Your task to perform on an android device: Open network settings Image 0: 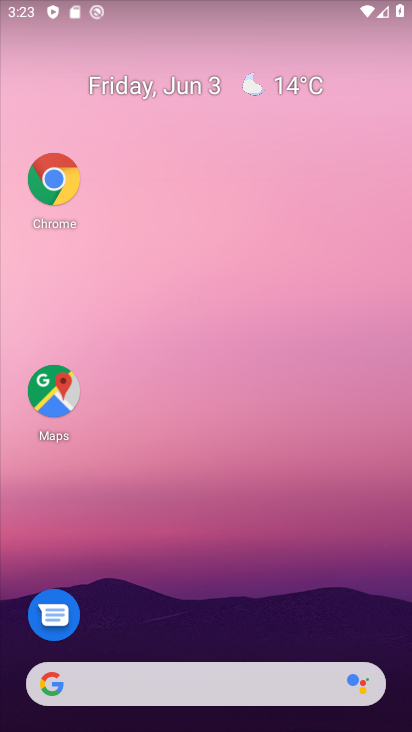
Step 0: drag from (188, 713) to (81, 74)
Your task to perform on an android device: Open network settings Image 1: 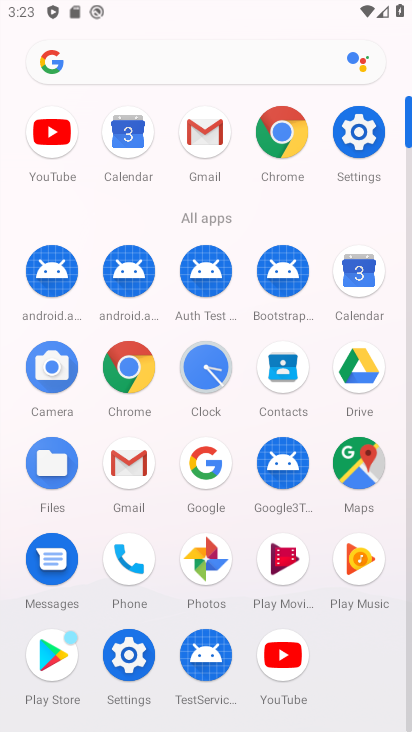
Step 1: click (364, 145)
Your task to perform on an android device: Open network settings Image 2: 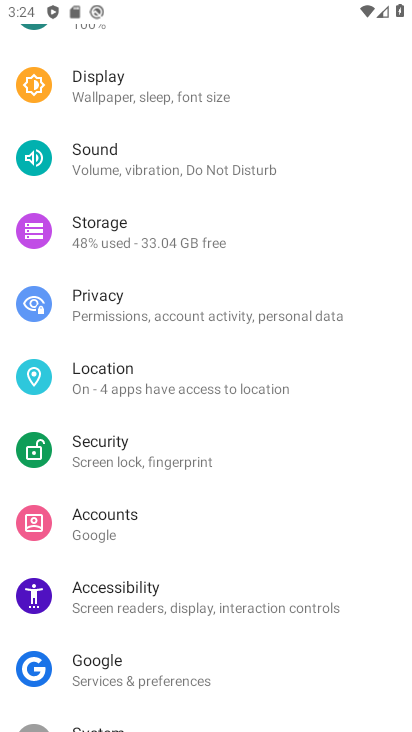
Step 2: drag from (356, 122) to (317, 666)
Your task to perform on an android device: Open network settings Image 3: 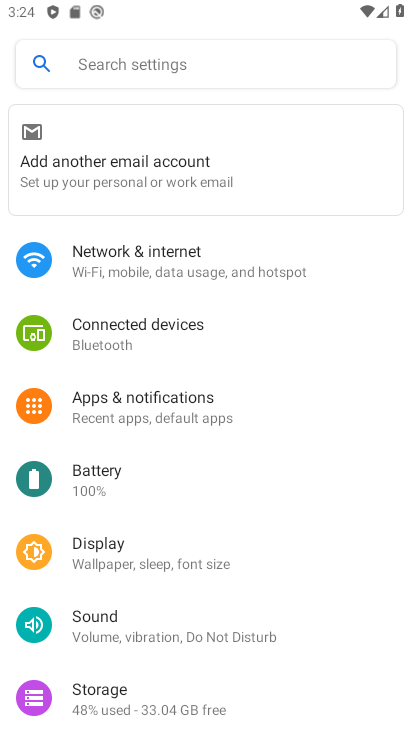
Step 3: click (174, 264)
Your task to perform on an android device: Open network settings Image 4: 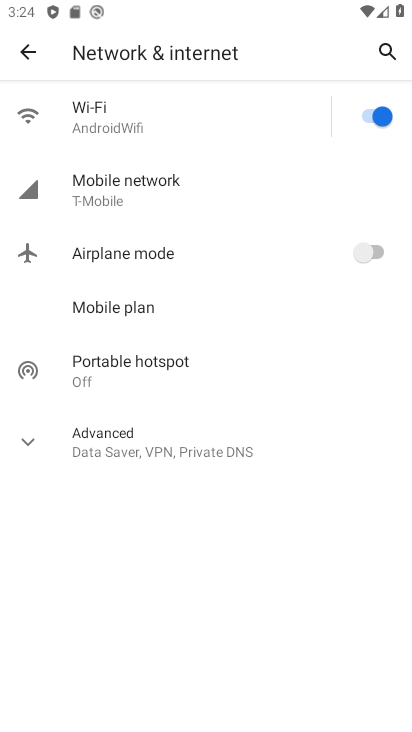
Step 4: click (110, 193)
Your task to perform on an android device: Open network settings Image 5: 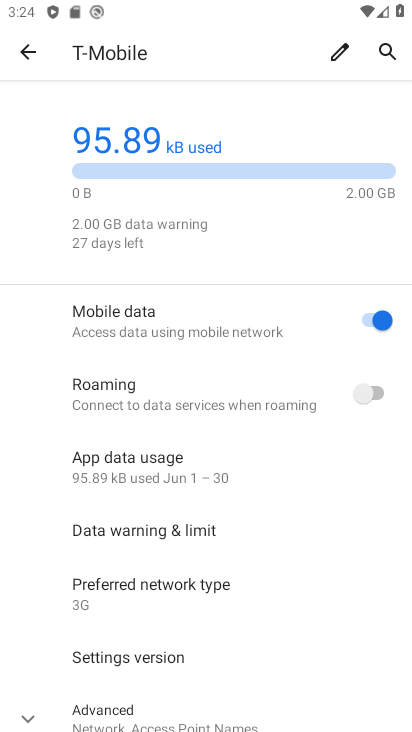
Step 5: drag from (247, 650) to (264, 256)
Your task to perform on an android device: Open network settings Image 6: 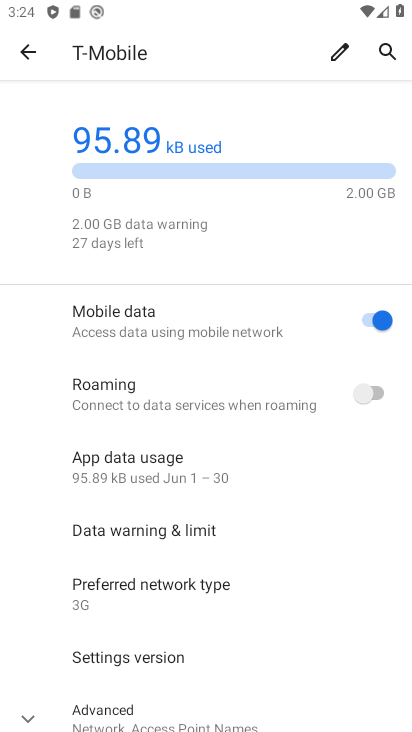
Step 6: drag from (39, 687) to (9, 230)
Your task to perform on an android device: Open network settings Image 7: 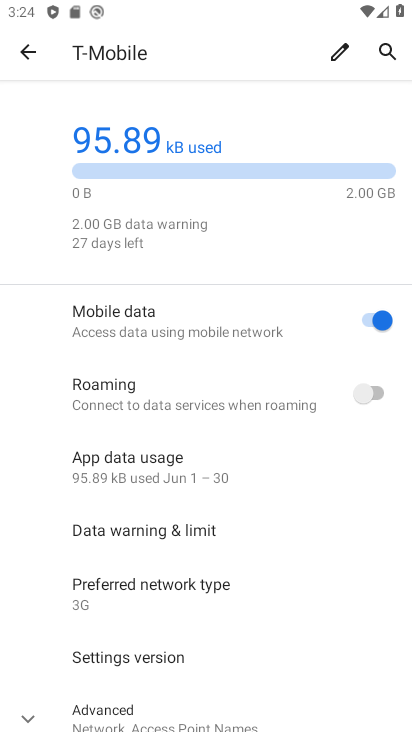
Step 7: drag from (300, 695) to (238, 275)
Your task to perform on an android device: Open network settings Image 8: 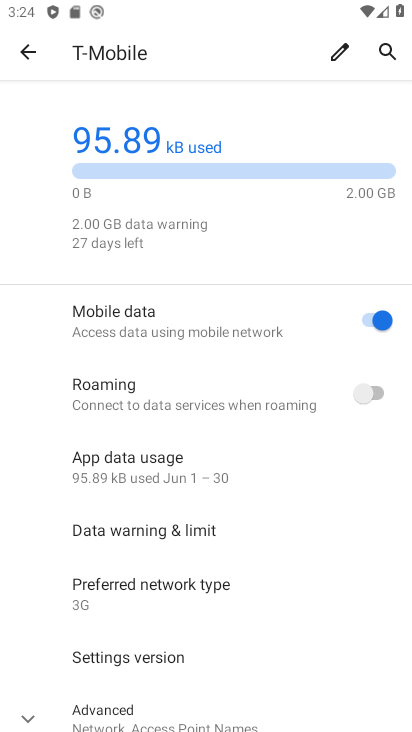
Step 8: drag from (299, 713) to (272, 345)
Your task to perform on an android device: Open network settings Image 9: 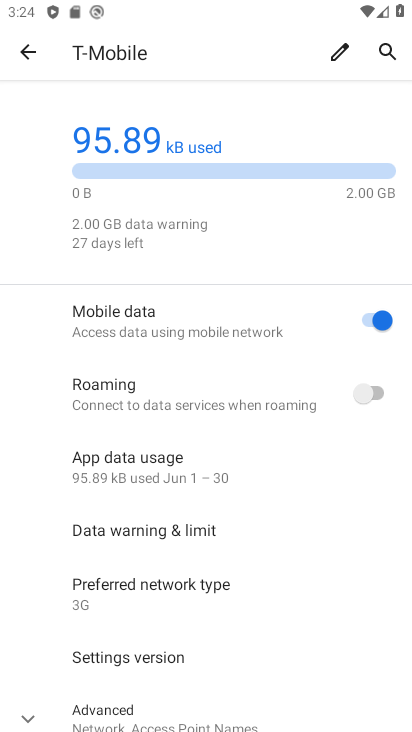
Step 9: click (198, 665)
Your task to perform on an android device: Open network settings Image 10: 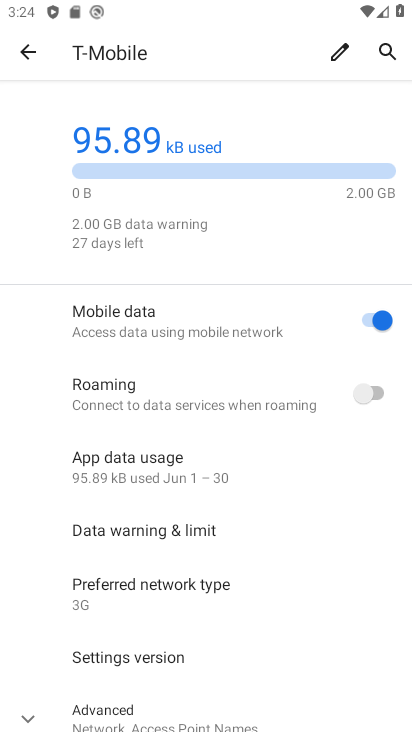
Step 10: click (198, 665)
Your task to perform on an android device: Open network settings Image 11: 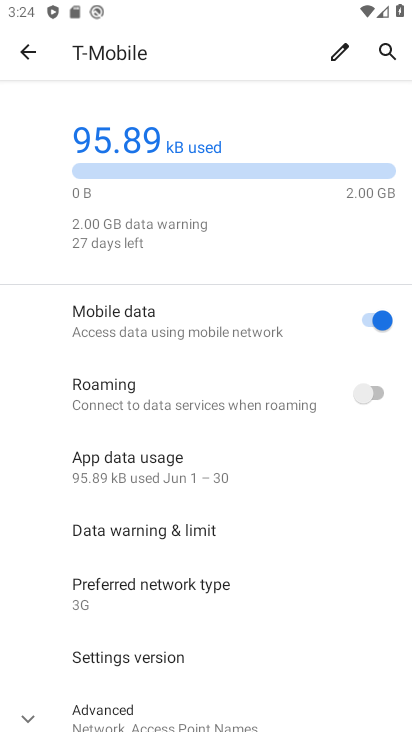
Step 11: click (232, 719)
Your task to perform on an android device: Open network settings Image 12: 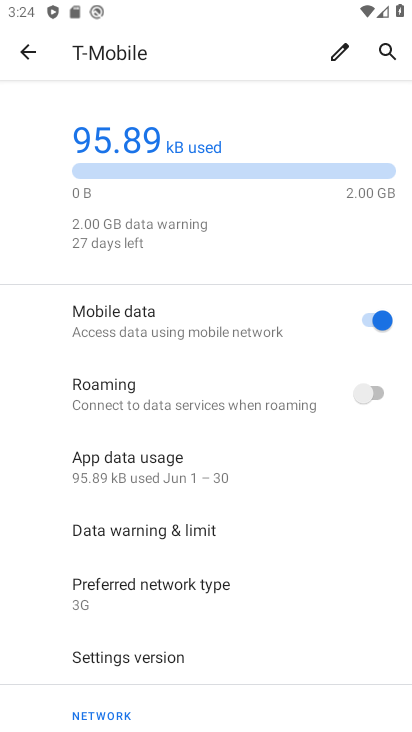
Step 12: task complete